Your task to perform on an android device: see sites visited before in the chrome app Image 0: 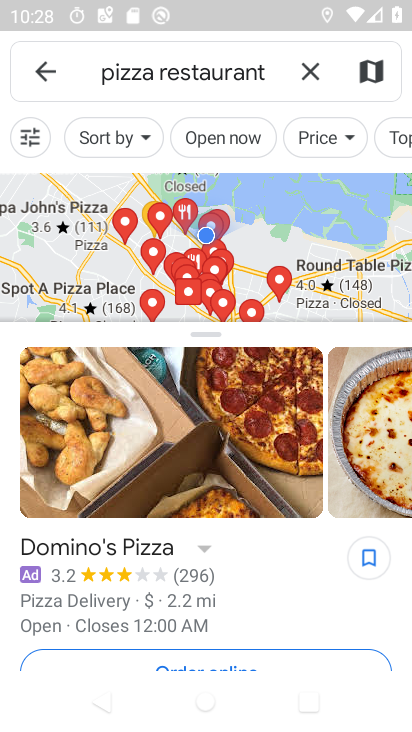
Step 0: press home button
Your task to perform on an android device: see sites visited before in the chrome app Image 1: 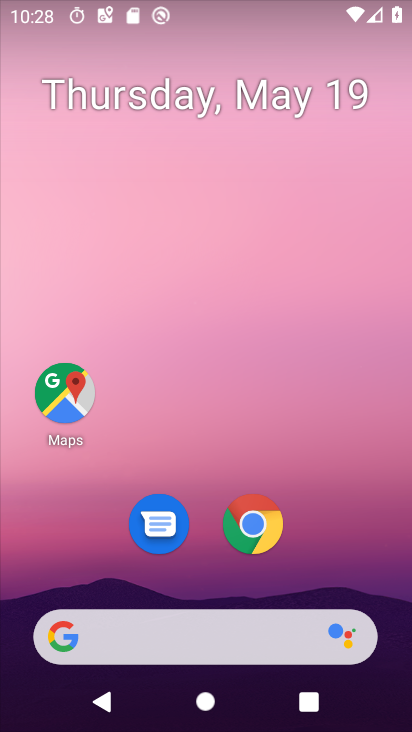
Step 1: click (255, 527)
Your task to perform on an android device: see sites visited before in the chrome app Image 2: 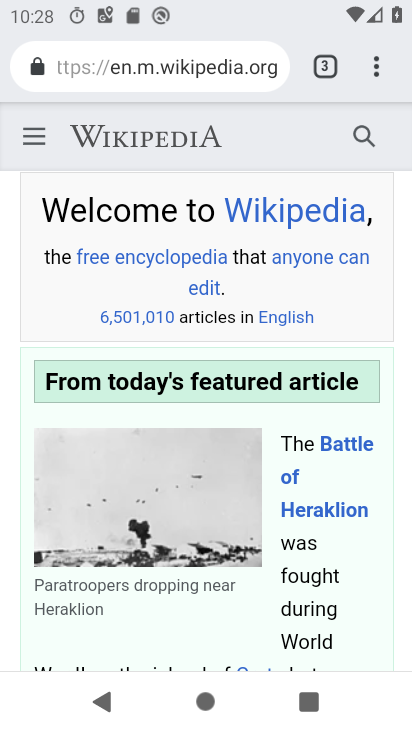
Step 2: click (370, 69)
Your task to perform on an android device: see sites visited before in the chrome app Image 3: 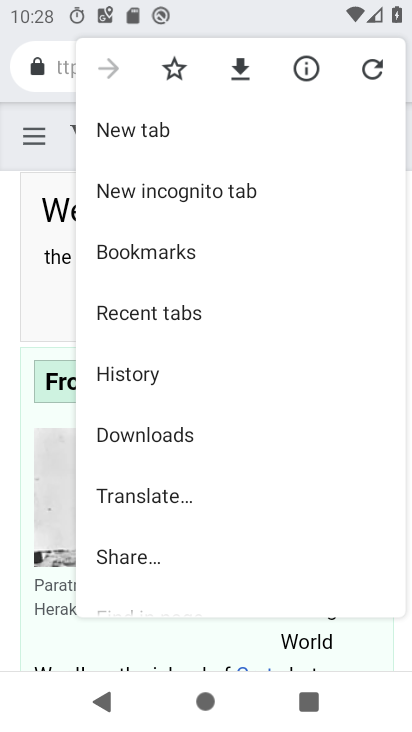
Step 3: click (183, 310)
Your task to perform on an android device: see sites visited before in the chrome app Image 4: 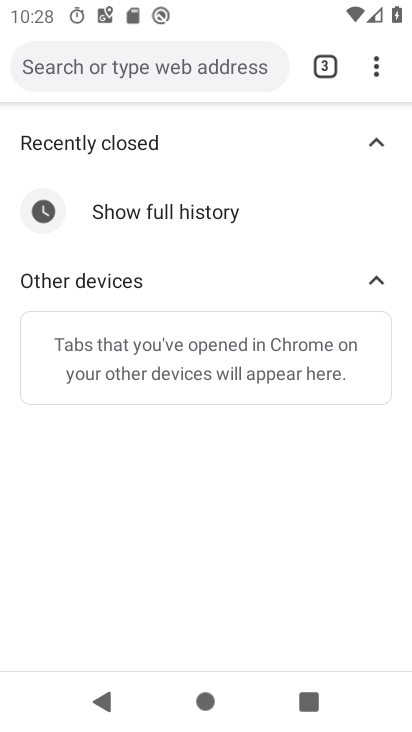
Step 4: task complete